Your task to perform on an android device: Open Yahoo.com Image 0: 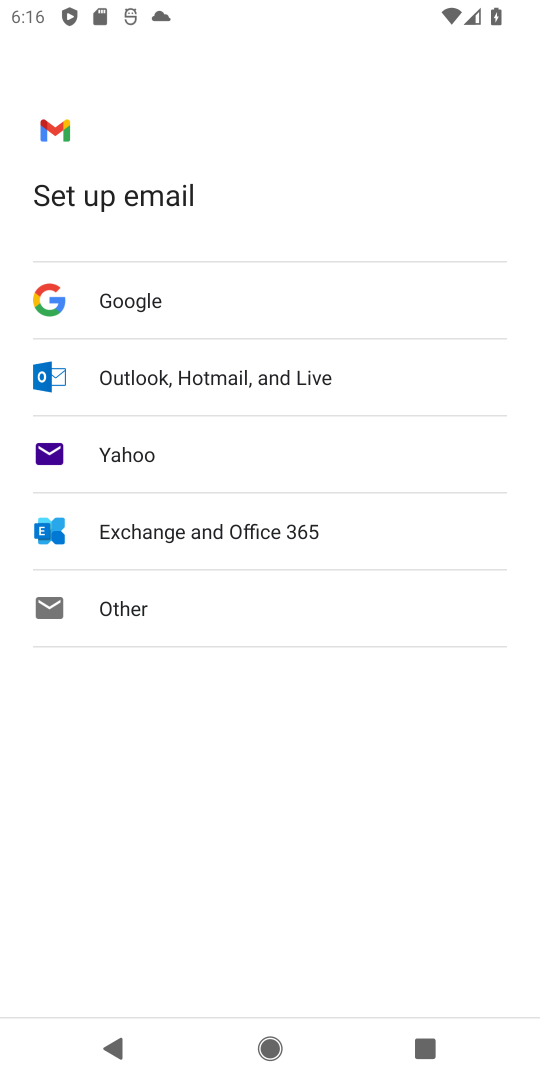
Step 0: press back button
Your task to perform on an android device: Open Yahoo.com Image 1: 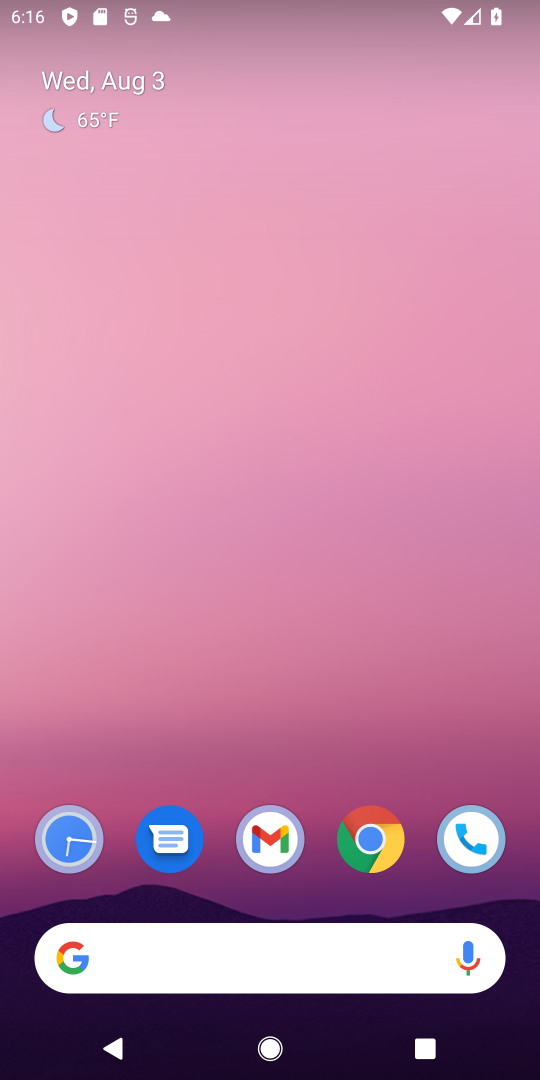
Step 1: click (382, 840)
Your task to perform on an android device: Open Yahoo.com Image 2: 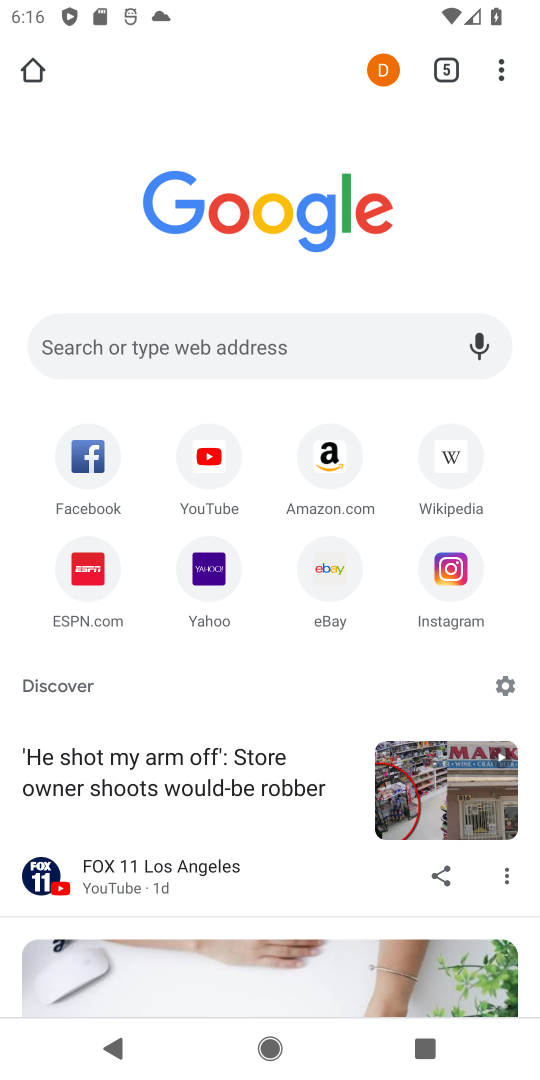
Step 2: click (205, 580)
Your task to perform on an android device: Open Yahoo.com Image 3: 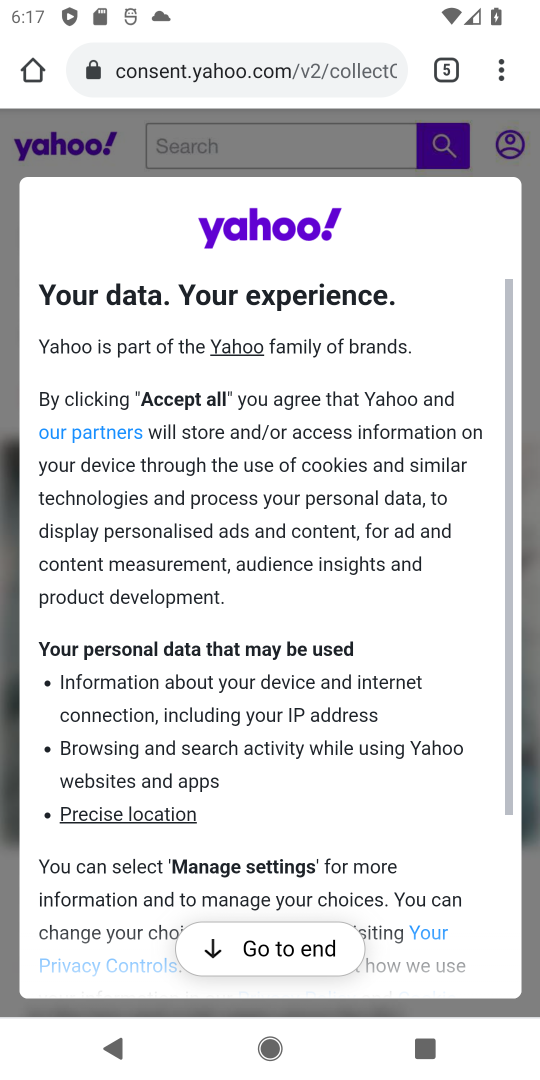
Step 3: task complete